Your task to perform on an android device: turn pop-ups off in chrome Image 0: 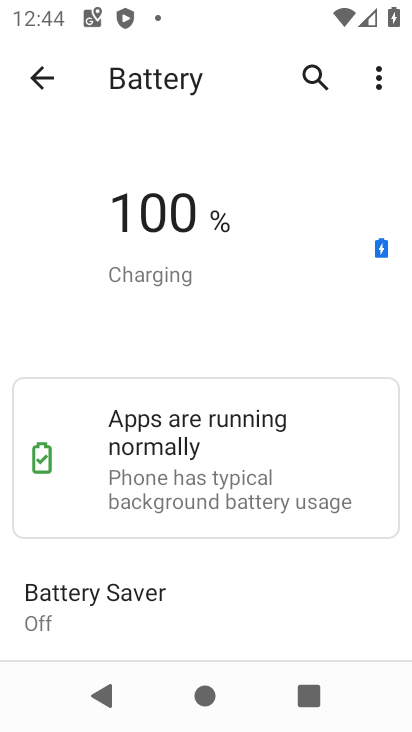
Step 0: press home button
Your task to perform on an android device: turn pop-ups off in chrome Image 1: 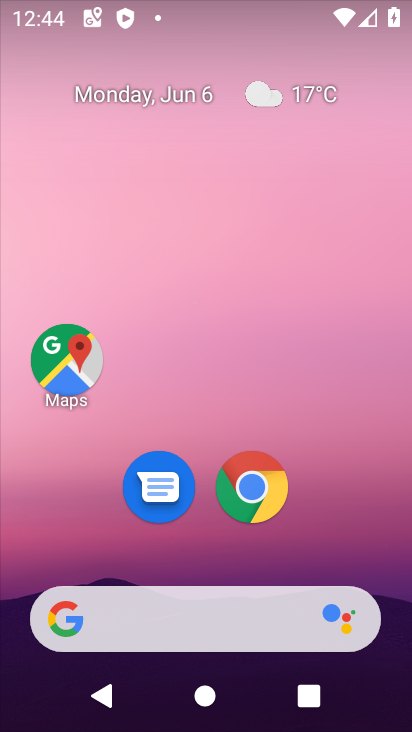
Step 1: click (240, 474)
Your task to perform on an android device: turn pop-ups off in chrome Image 2: 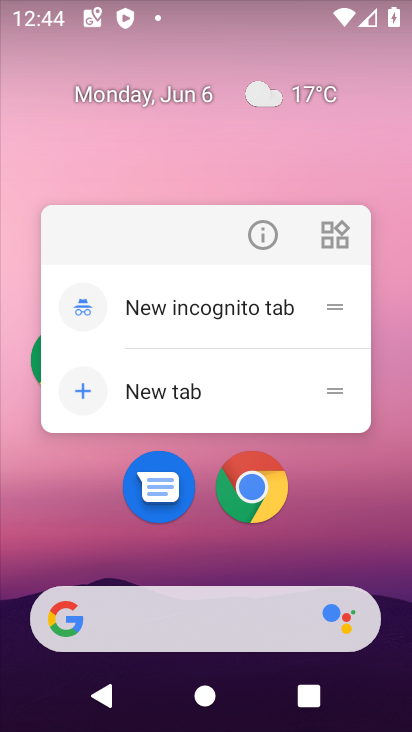
Step 2: click (242, 495)
Your task to perform on an android device: turn pop-ups off in chrome Image 3: 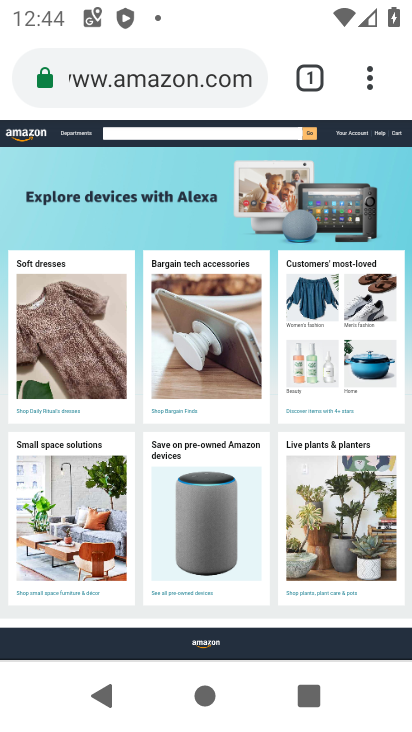
Step 3: drag from (371, 78) to (141, 555)
Your task to perform on an android device: turn pop-ups off in chrome Image 4: 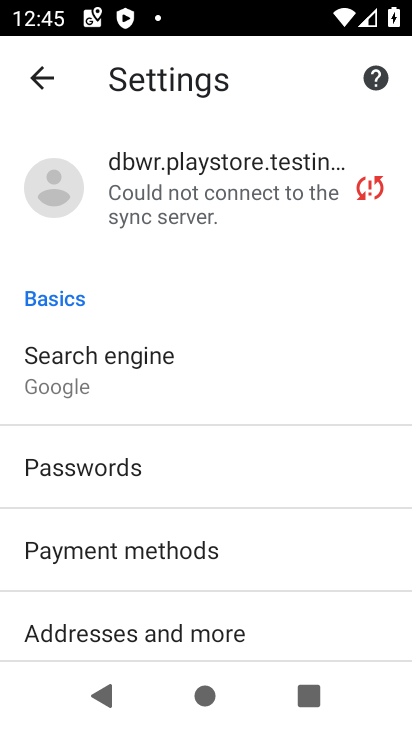
Step 4: drag from (217, 573) to (249, 87)
Your task to perform on an android device: turn pop-ups off in chrome Image 5: 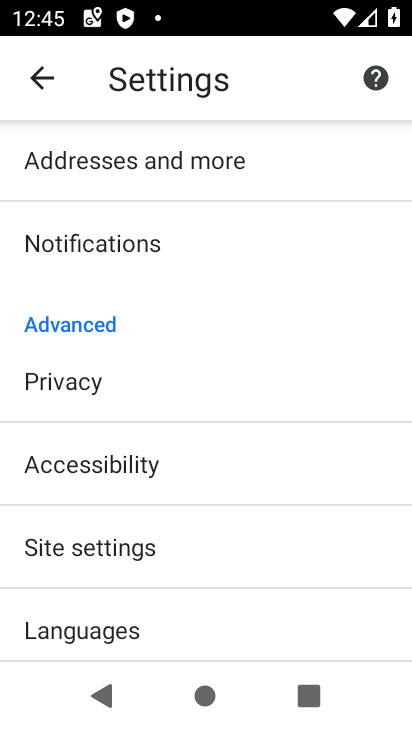
Step 5: click (189, 547)
Your task to perform on an android device: turn pop-ups off in chrome Image 6: 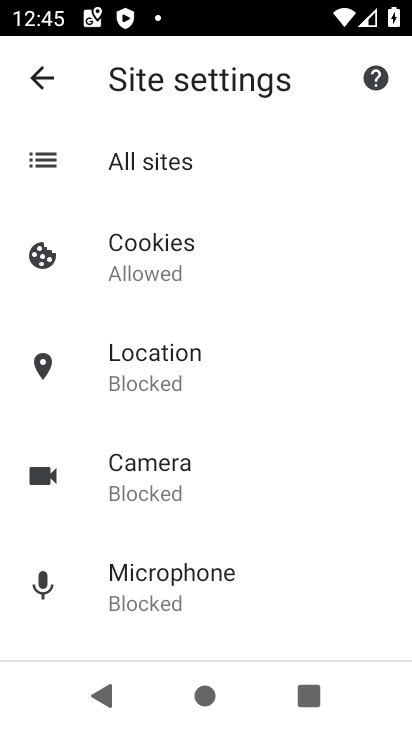
Step 6: drag from (184, 590) to (235, 70)
Your task to perform on an android device: turn pop-ups off in chrome Image 7: 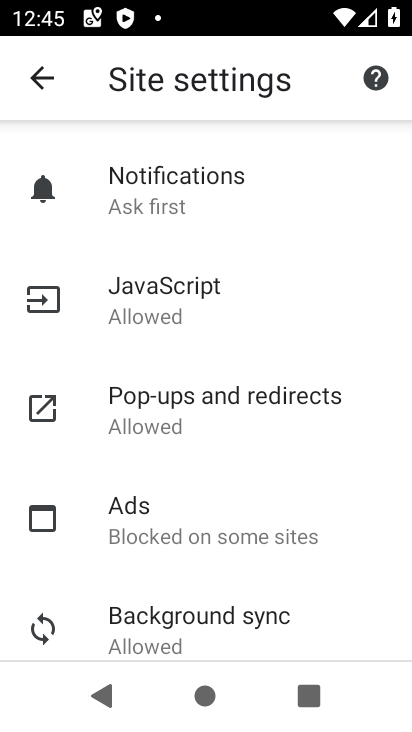
Step 7: click (200, 413)
Your task to perform on an android device: turn pop-ups off in chrome Image 8: 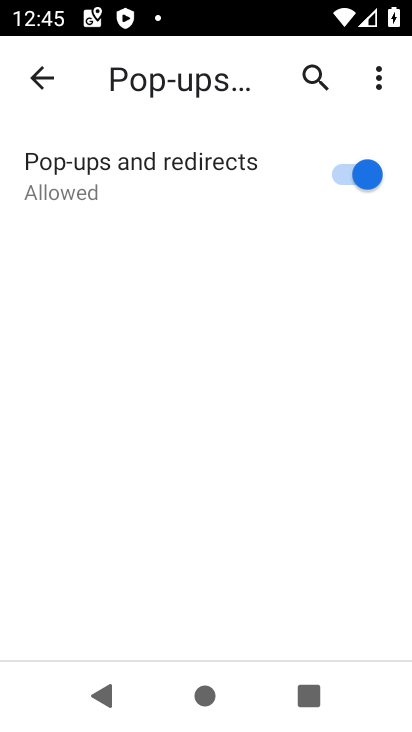
Step 8: click (372, 170)
Your task to perform on an android device: turn pop-ups off in chrome Image 9: 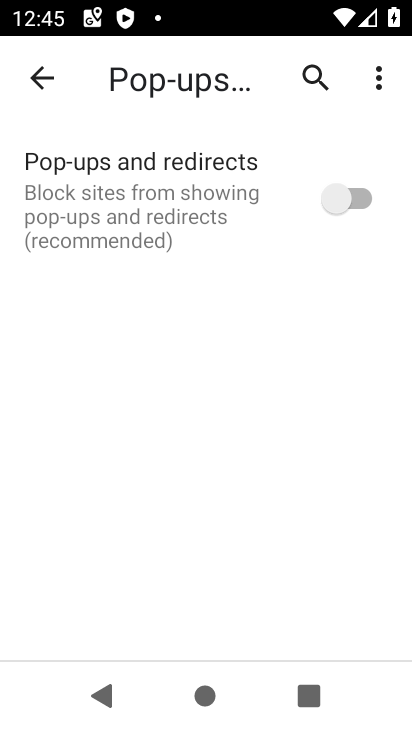
Step 9: task complete